Your task to perform on an android device: star an email in the gmail app Image 0: 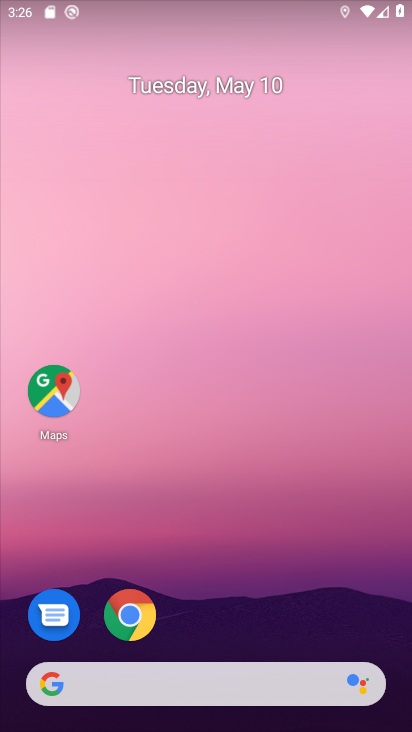
Step 0: drag from (249, 582) to (274, 70)
Your task to perform on an android device: star an email in the gmail app Image 1: 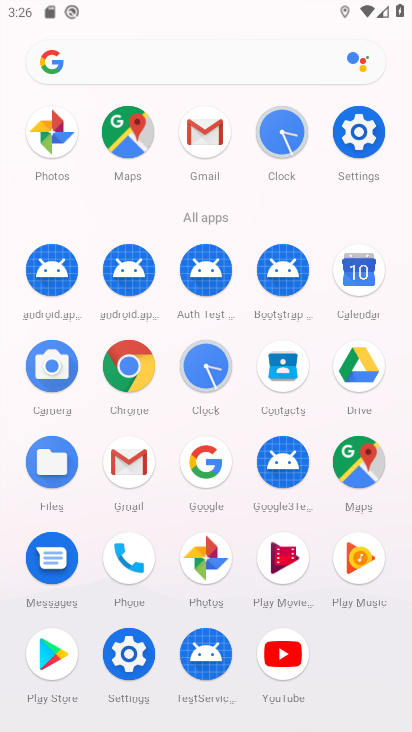
Step 1: click (215, 148)
Your task to perform on an android device: star an email in the gmail app Image 2: 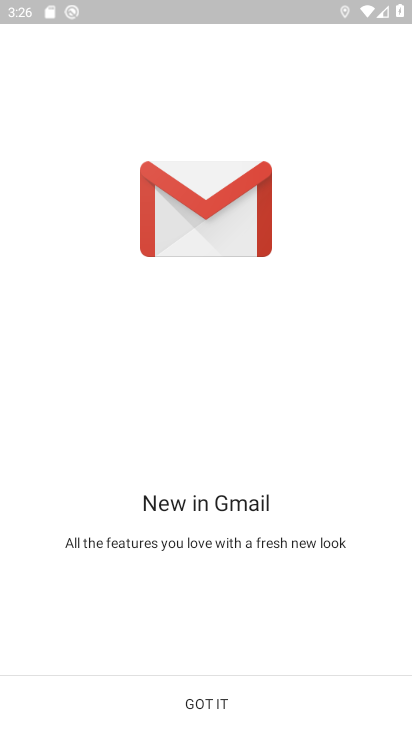
Step 2: click (198, 710)
Your task to perform on an android device: star an email in the gmail app Image 3: 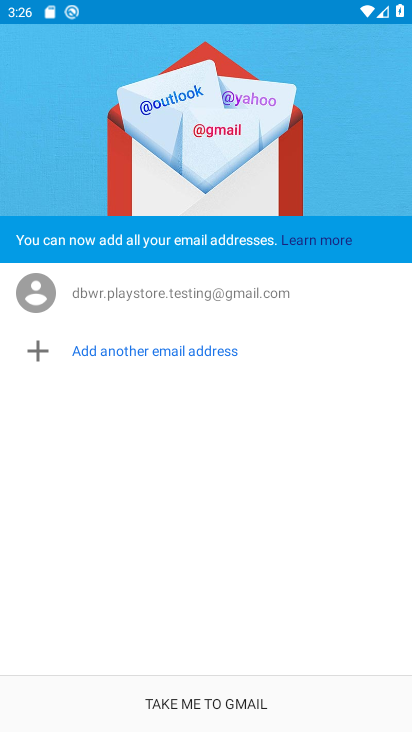
Step 3: click (281, 299)
Your task to perform on an android device: star an email in the gmail app Image 4: 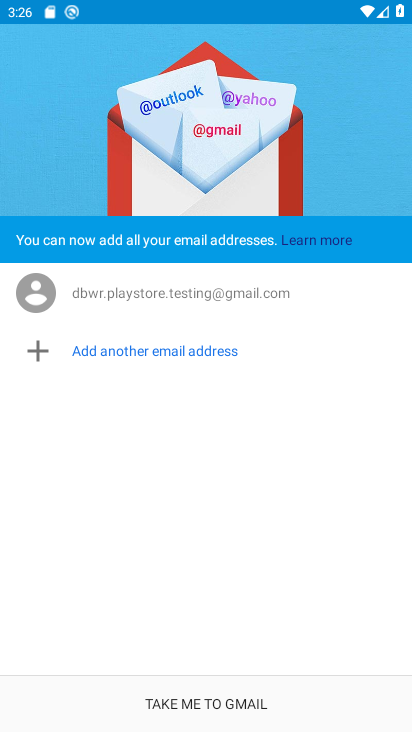
Step 4: press home button
Your task to perform on an android device: star an email in the gmail app Image 5: 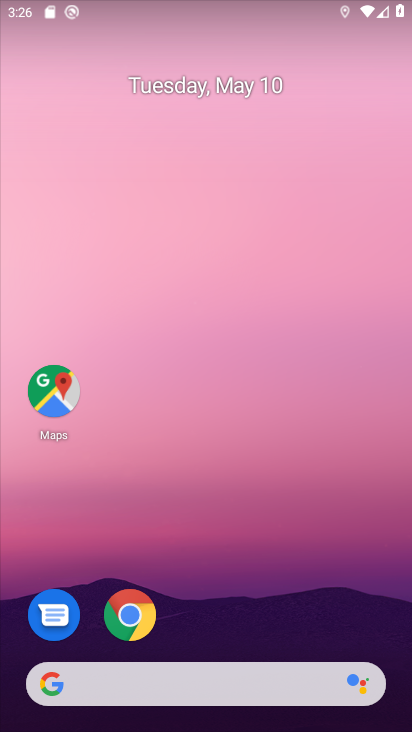
Step 5: drag from (225, 590) to (260, 263)
Your task to perform on an android device: star an email in the gmail app Image 6: 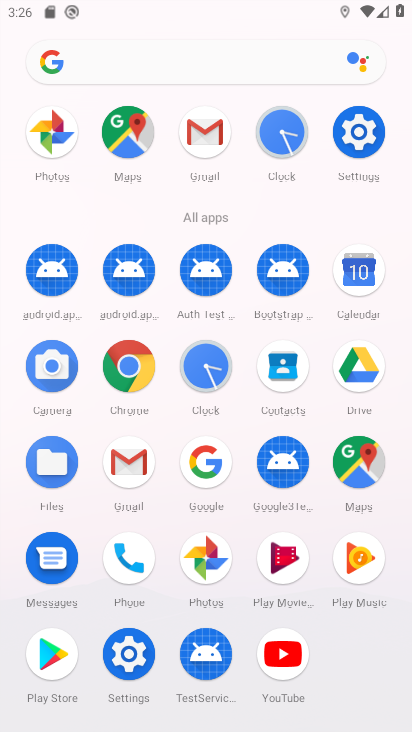
Step 6: click (208, 129)
Your task to perform on an android device: star an email in the gmail app Image 7: 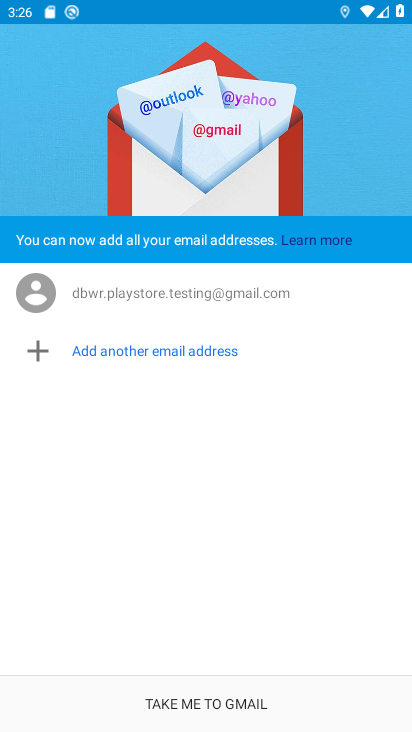
Step 7: click (233, 699)
Your task to perform on an android device: star an email in the gmail app Image 8: 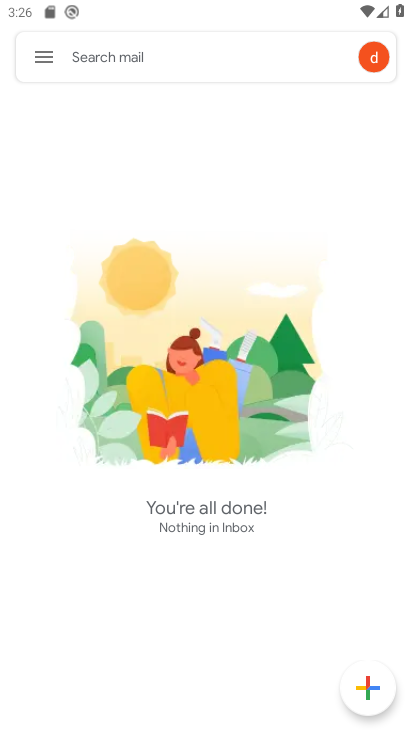
Step 8: click (51, 60)
Your task to perform on an android device: star an email in the gmail app Image 9: 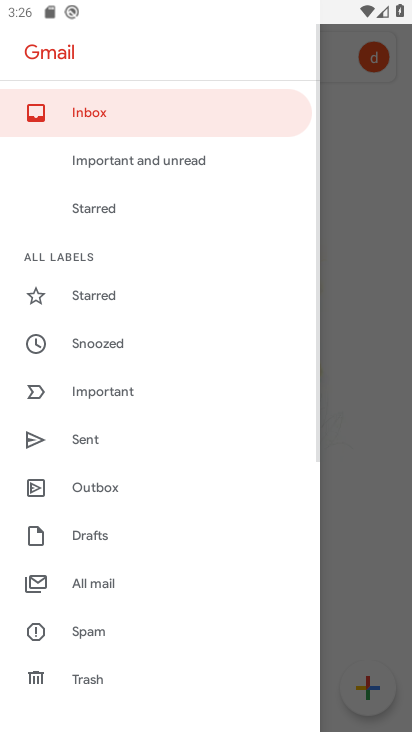
Step 9: click (91, 119)
Your task to perform on an android device: star an email in the gmail app Image 10: 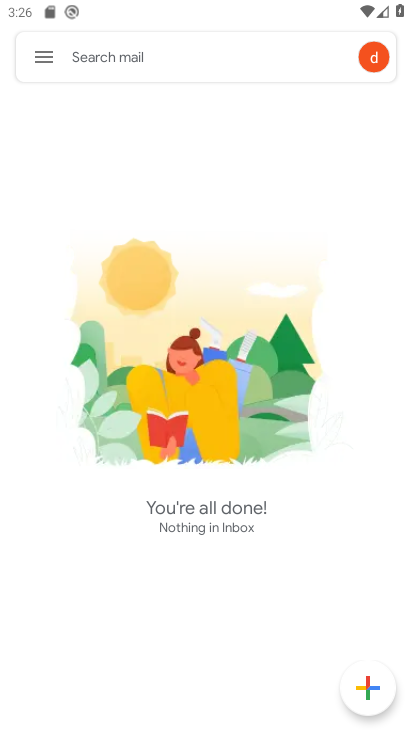
Step 10: click (43, 62)
Your task to perform on an android device: star an email in the gmail app Image 11: 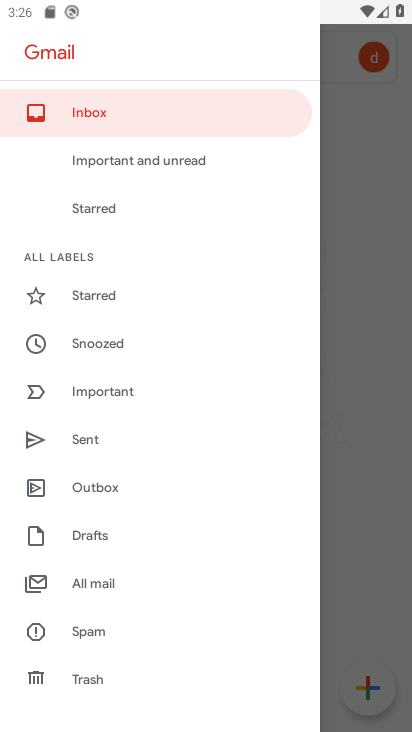
Step 11: click (358, 376)
Your task to perform on an android device: star an email in the gmail app Image 12: 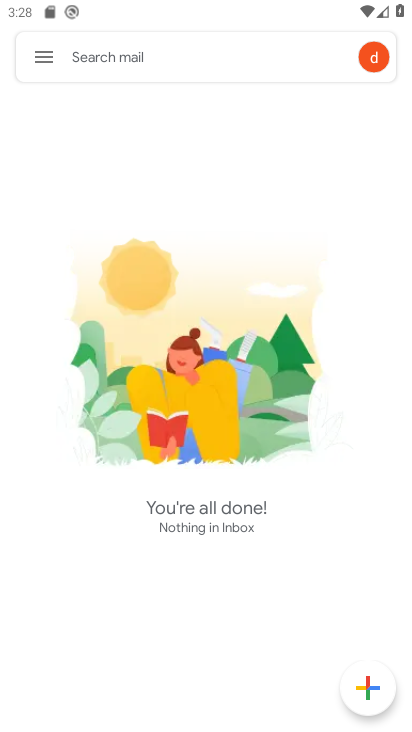
Step 12: click (29, 54)
Your task to perform on an android device: star an email in the gmail app Image 13: 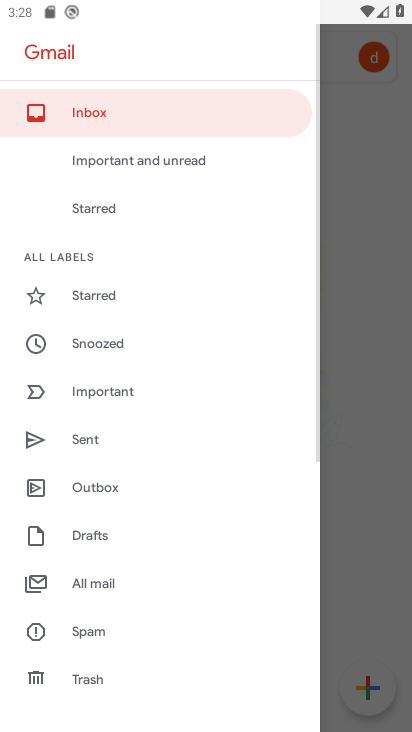
Step 13: click (110, 297)
Your task to perform on an android device: star an email in the gmail app Image 14: 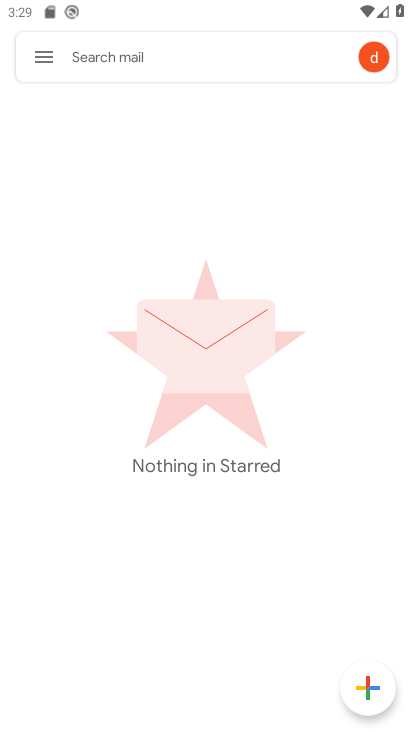
Step 14: task complete